Your task to perform on an android device: find which apps use the phone's location Image 0: 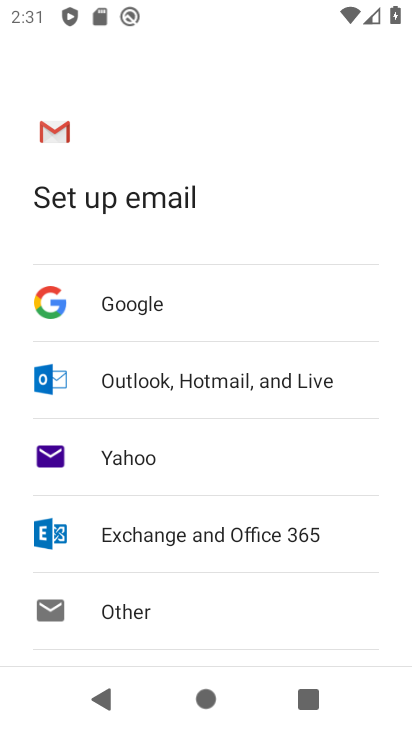
Step 0: press home button
Your task to perform on an android device: find which apps use the phone's location Image 1: 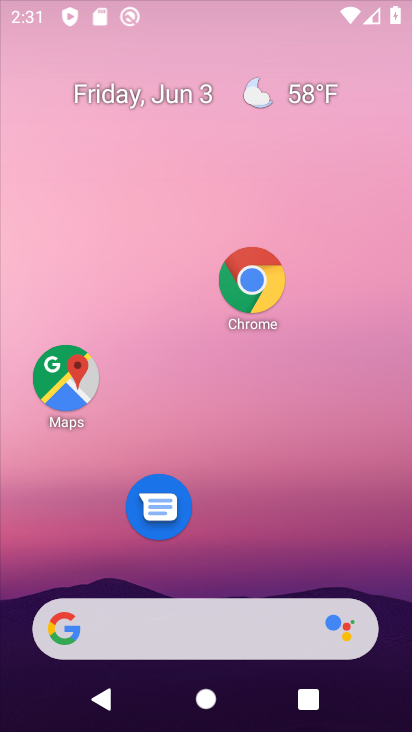
Step 1: drag from (250, 554) to (253, 0)
Your task to perform on an android device: find which apps use the phone's location Image 2: 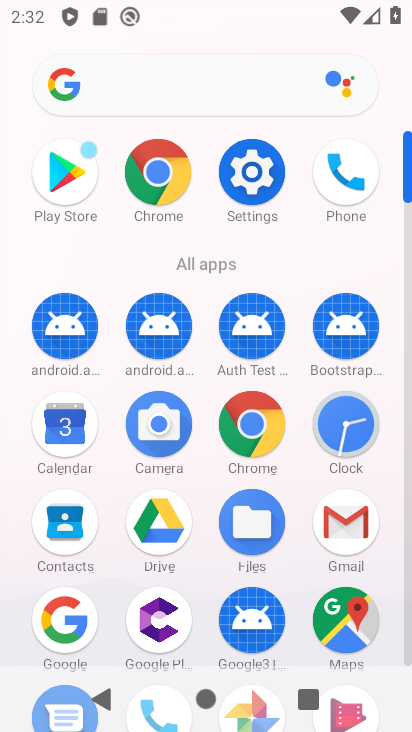
Step 2: drag from (204, 543) to (179, 155)
Your task to perform on an android device: find which apps use the phone's location Image 3: 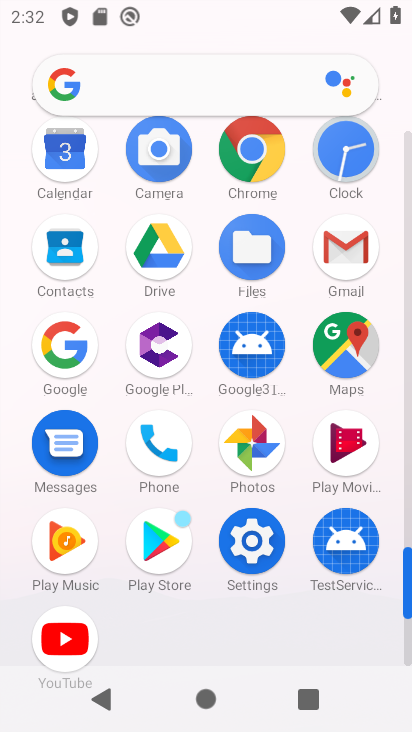
Step 3: click (250, 537)
Your task to perform on an android device: find which apps use the phone's location Image 4: 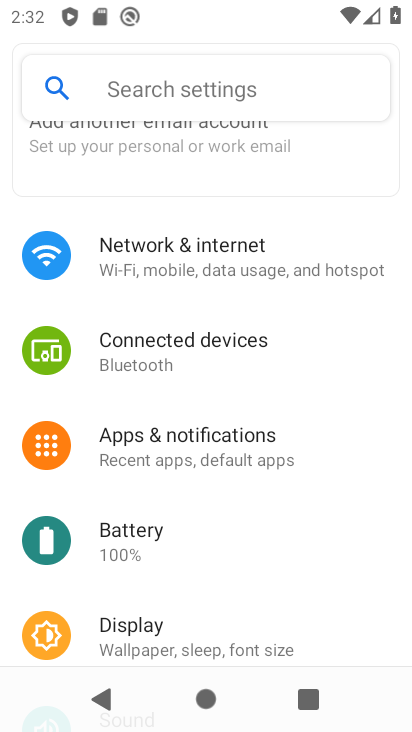
Step 4: drag from (250, 537) to (248, 180)
Your task to perform on an android device: find which apps use the phone's location Image 5: 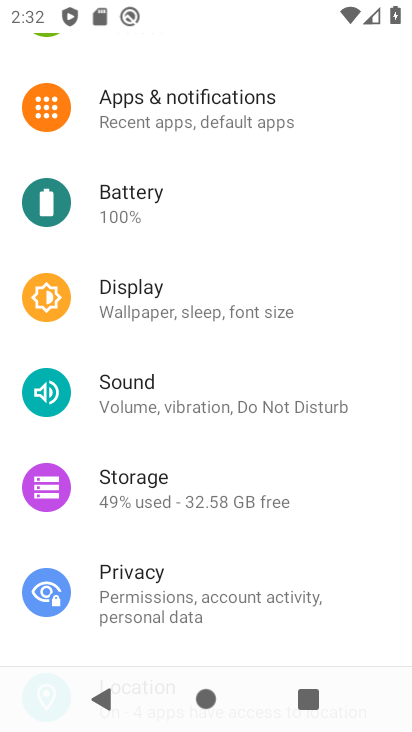
Step 5: drag from (262, 555) to (241, 212)
Your task to perform on an android device: find which apps use the phone's location Image 6: 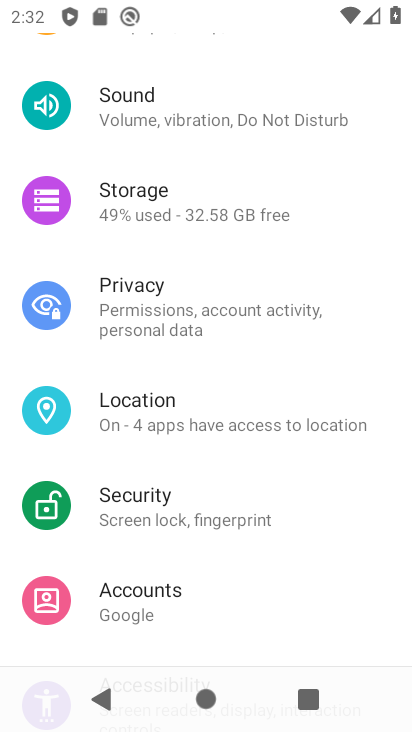
Step 6: click (142, 411)
Your task to perform on an android device: find which apps use the phone's location Image 7: 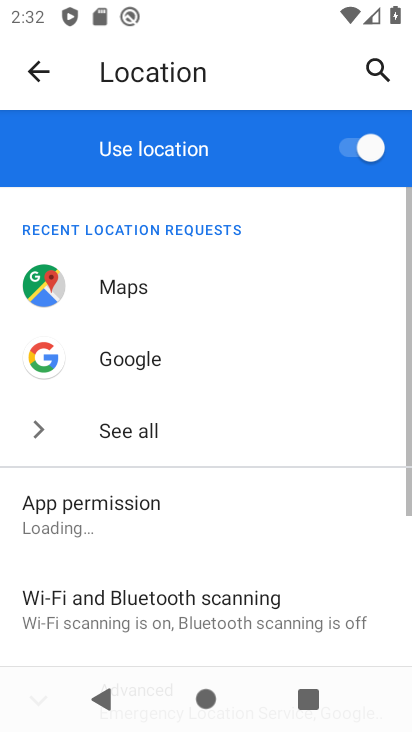
Step 7: click (150, 505)
Your task to perform on an android device: find which apps use the phone's location Image 8: 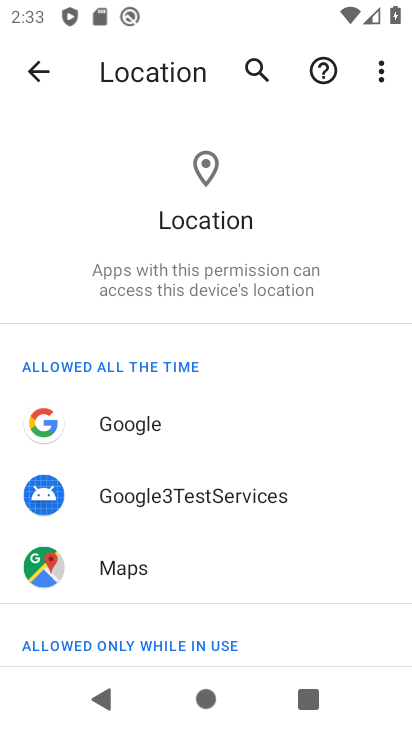
Step 8: task complete